Your task to perform on an android device: Search for seafood restaurants on Google Maps Image 0: 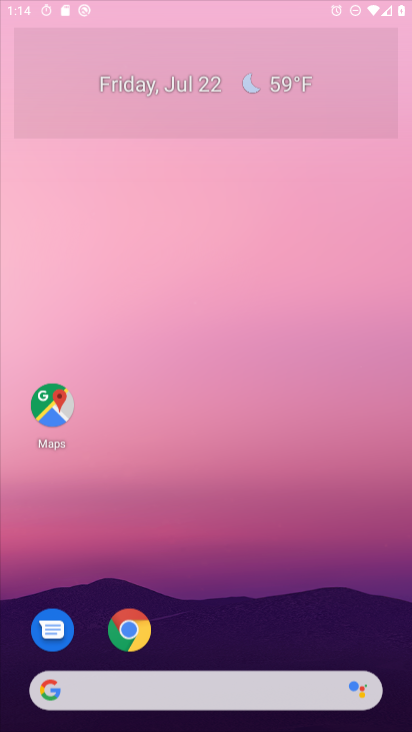
Step 0: press home button
Your task to perform on an android device: Search for seafood restaurants on Google Maps Image 1: 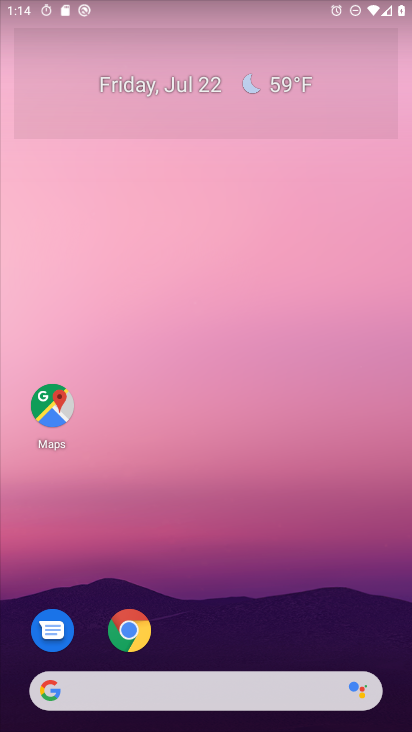
Step 1: drag from (270, 648) to (339, 184)
Your task to perform on an android device: Search for seafood restaurants on Google Maps Image 2: 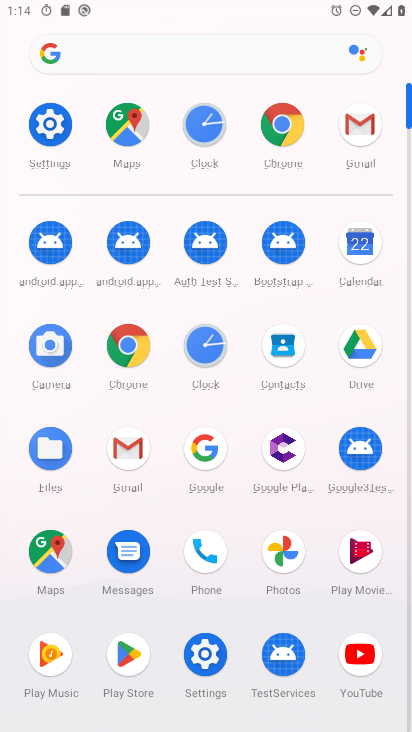
Step 2: click (137, 128)
Your task to perform on an android device: Search for seafood restaurants on Google Maps Image 3: 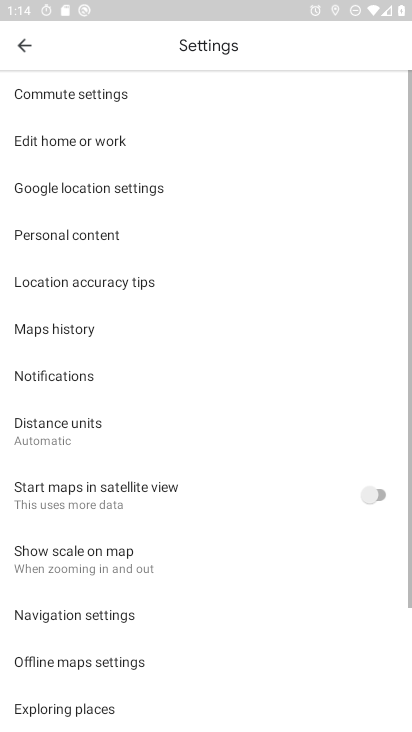
Step 3: click (28, 43)
Your task to perform on an android device: Search for seafood restaurants on Google Maps Image 4: 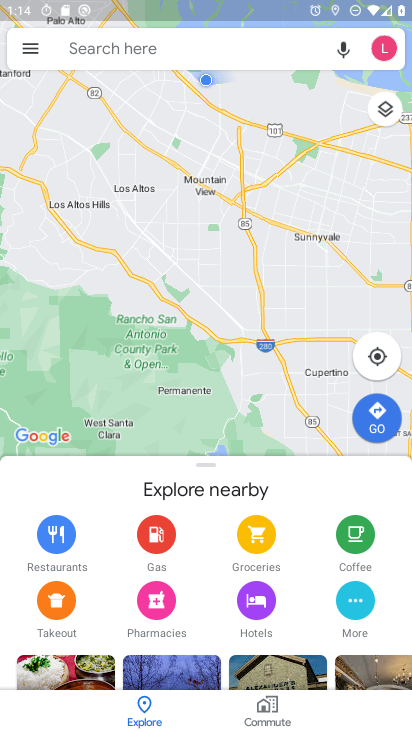
Step 4: click (149, 49)
Your task to perform on an android device: Search for seafood restaurants on Google Maps Image 5: 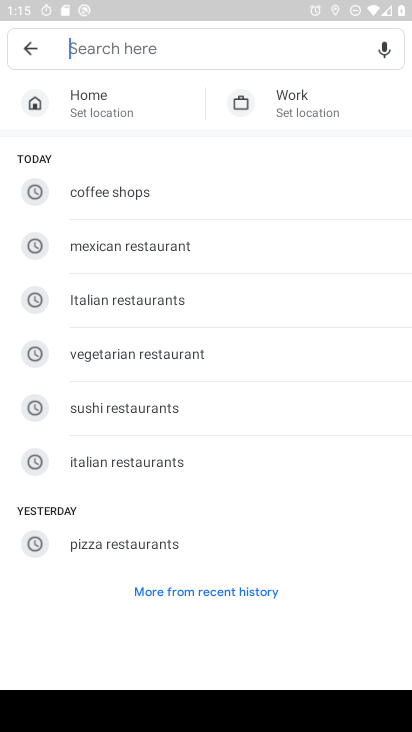
Step 5: type " seafood restaurants"
Your task to perform on an android device: Search for seafood restaurants on Google Maps Image 6: 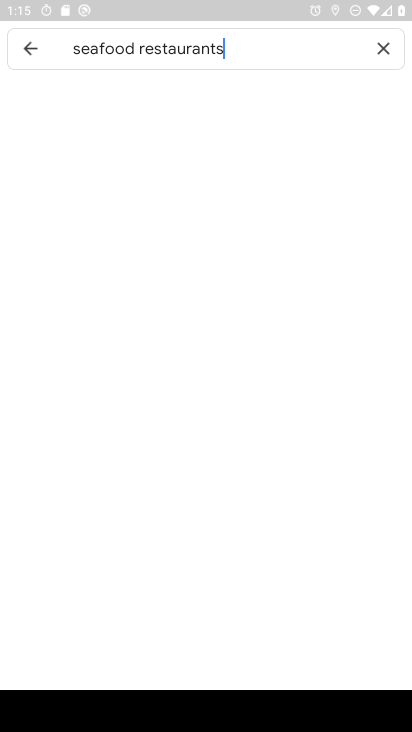
Step 6: press enter
Your task to perform on an android device: Search for seafood restaurants on Google Maps Image 7: 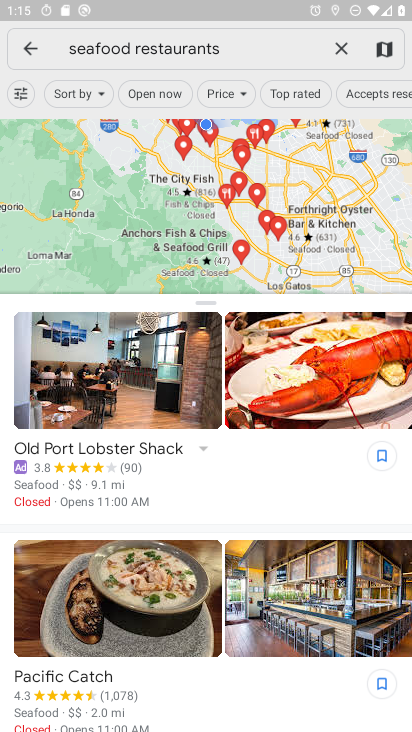
Step 7: task complete